Your task to perform on an android device: check google app version Image 0: 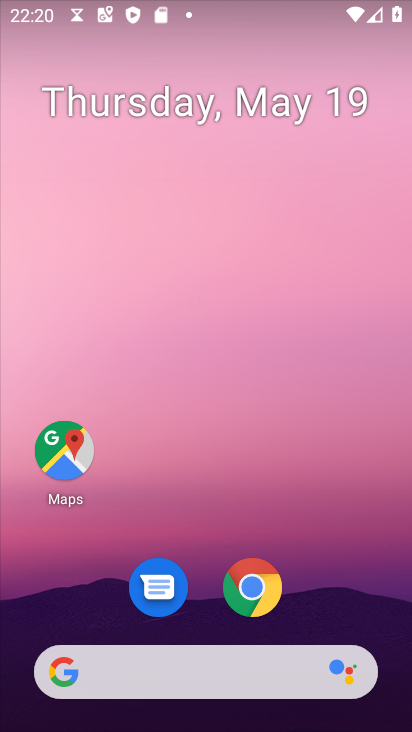
Step 0: drag from (166, 654) to (244, 28)
Your task to perform on an android device: check google app version Image 1: 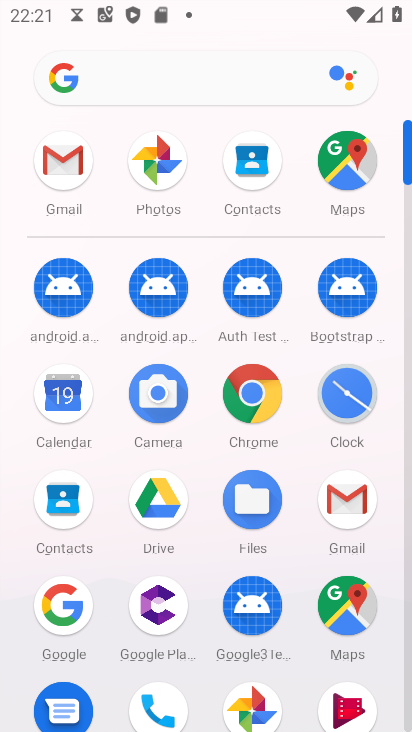
Step 1: click (75, 623)
Your task to perform on an android device: check google app version Image 2: 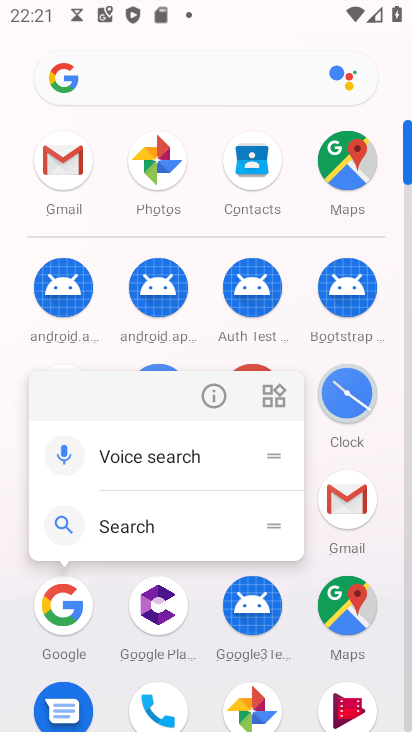
Step 2: click (217, 394)
Your task to perform on an android device: check google app version Image 3: 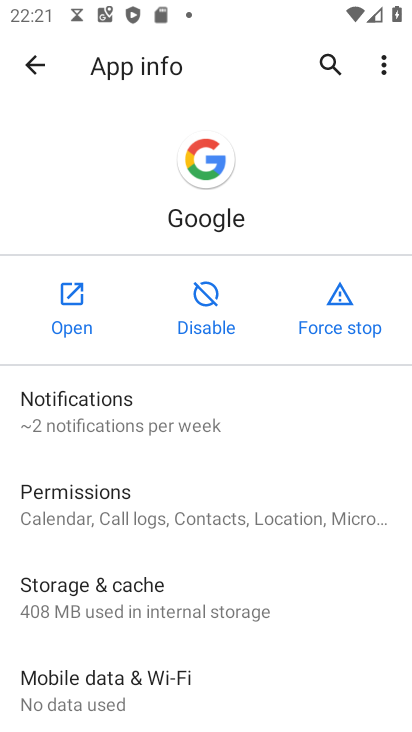
Step 3: drag from (217, 394) to (247, 67)
Your task to perform on an android device: check google app version Image 4: 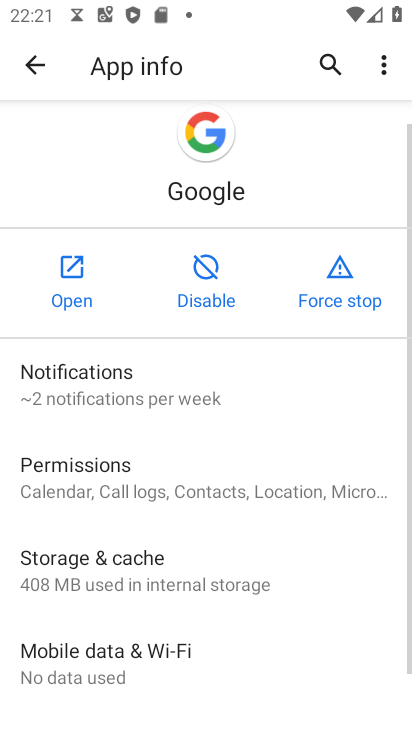
Step 4: drag from (175, 537) to (251, 95)
Your task to perform on an android device: check google app version Image 5: 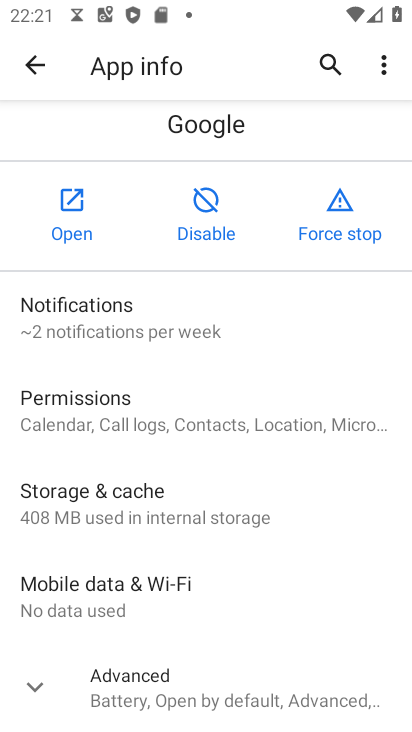
Step 5: click (108, 687)
Your task to perform on an android device: check google app version Image 6: 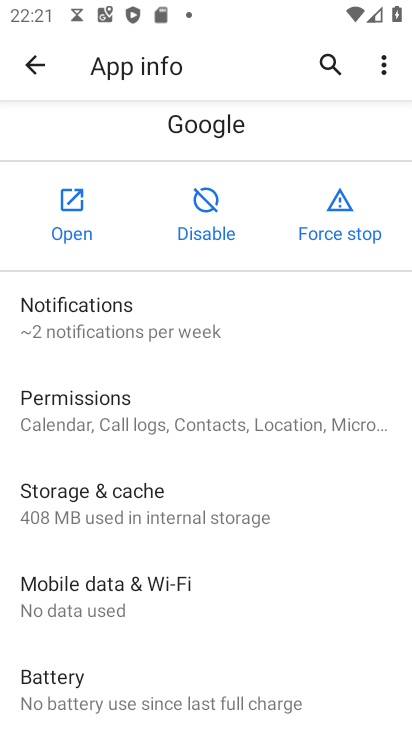
Step 6: drag from (108, 687) to (172, 391)
Your task to perform on an android device: check google app version Image 7: 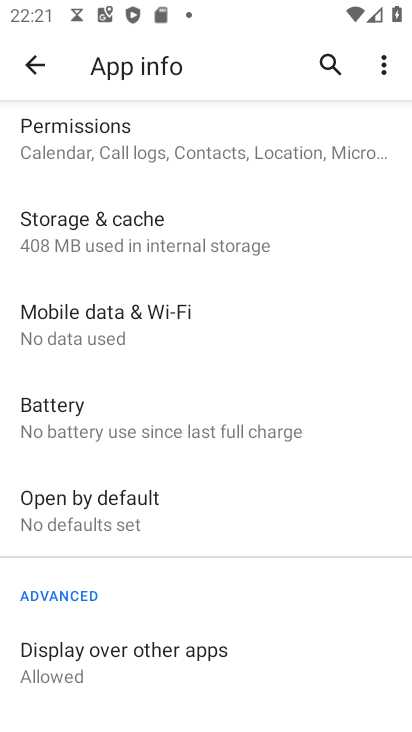
Step 7: click (154, 596)
Your task to perform on an android device: check google app version Image 8: 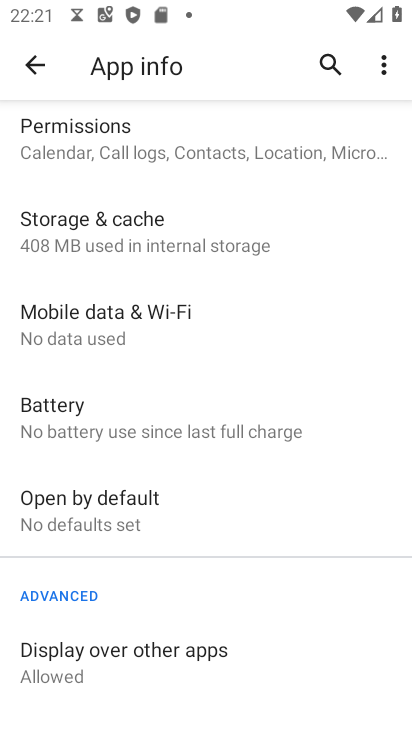
Step 8: task complete